Your task to perform on an android device: Go to network settings Image 0: 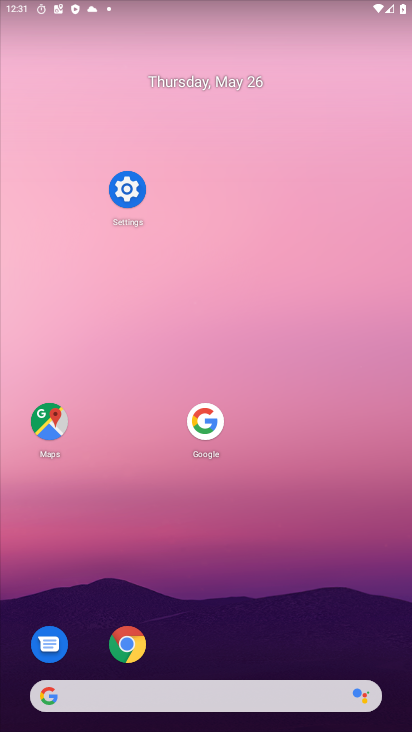
Step 0: drag from (219, 594) to (242, 158)
Your task to perform on an android device: Go to network settings Image 1: 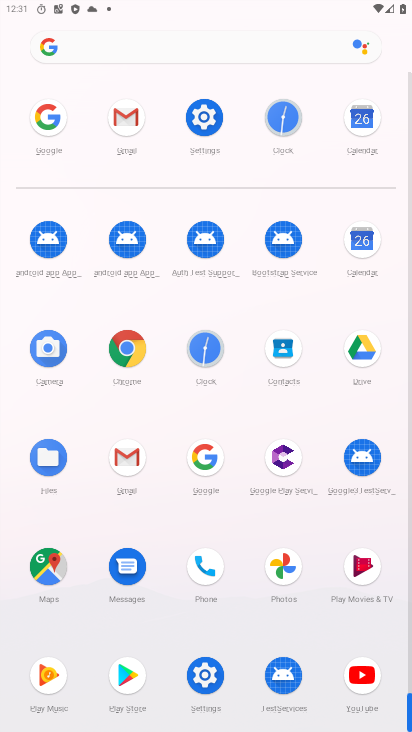
Step 1: click (202, 115)
Your task to perform on an android device: Go to network settings Image 2: 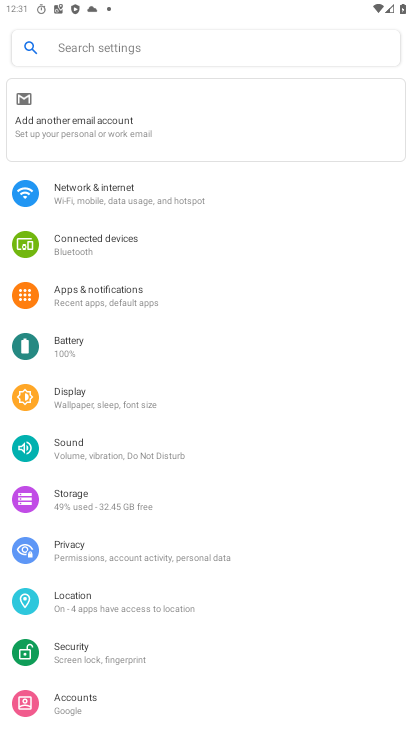
Step 2: click (121, 201)
Your task to perform on an android device: Go to network settings Image 3: 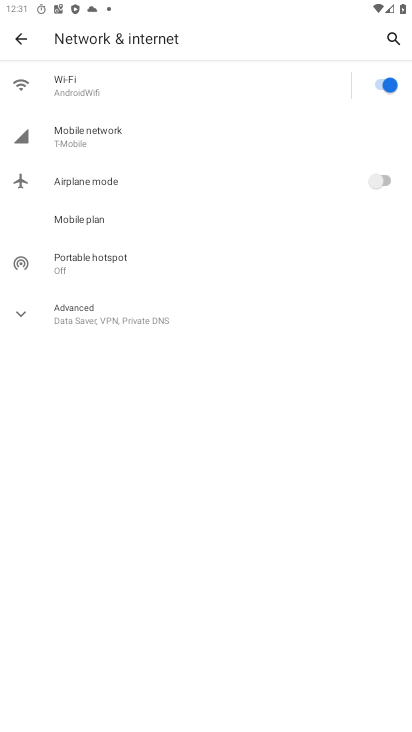
Step 3: click (87, 152)
Your task to perform on an android device: Go to network settings Image 4: 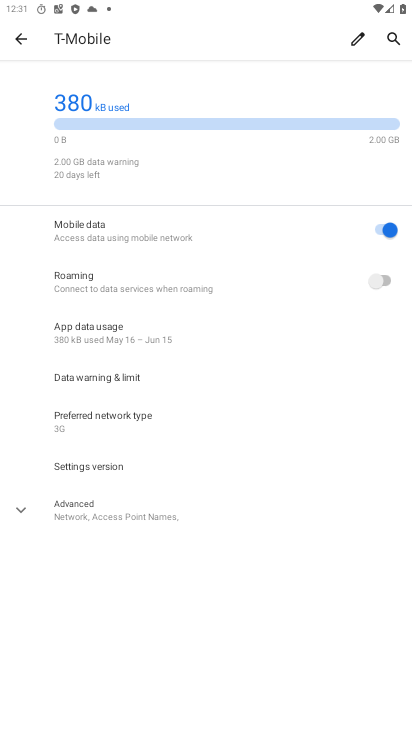
Step 4: task complete